Your task to perform on an android device: turn off translation in the chrome app Image 0: 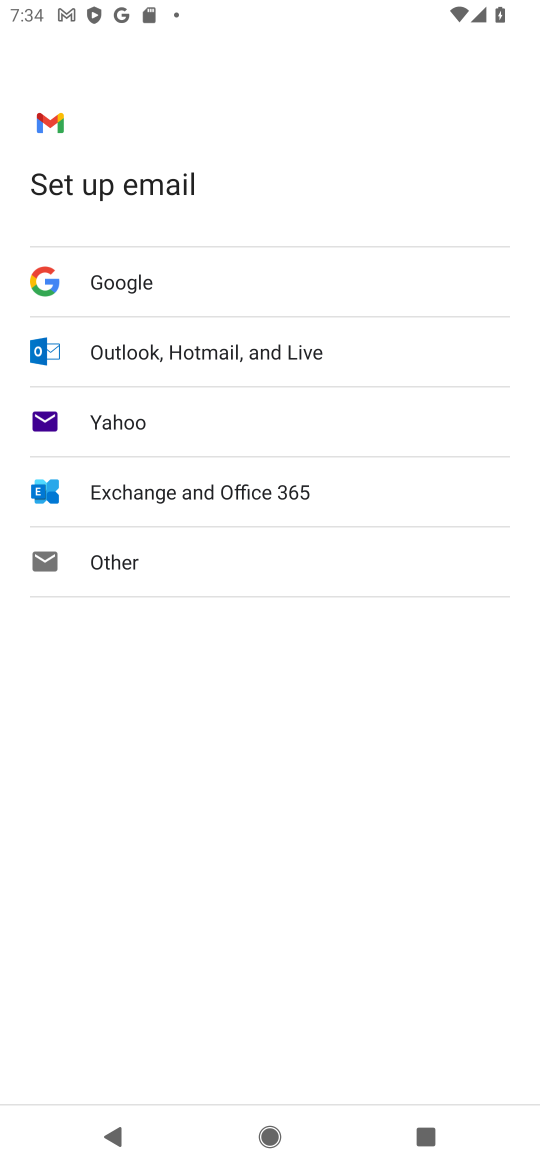
Step 0: press home button
Your task to perform on an android device: turn off translation in the chrome app Image 1: 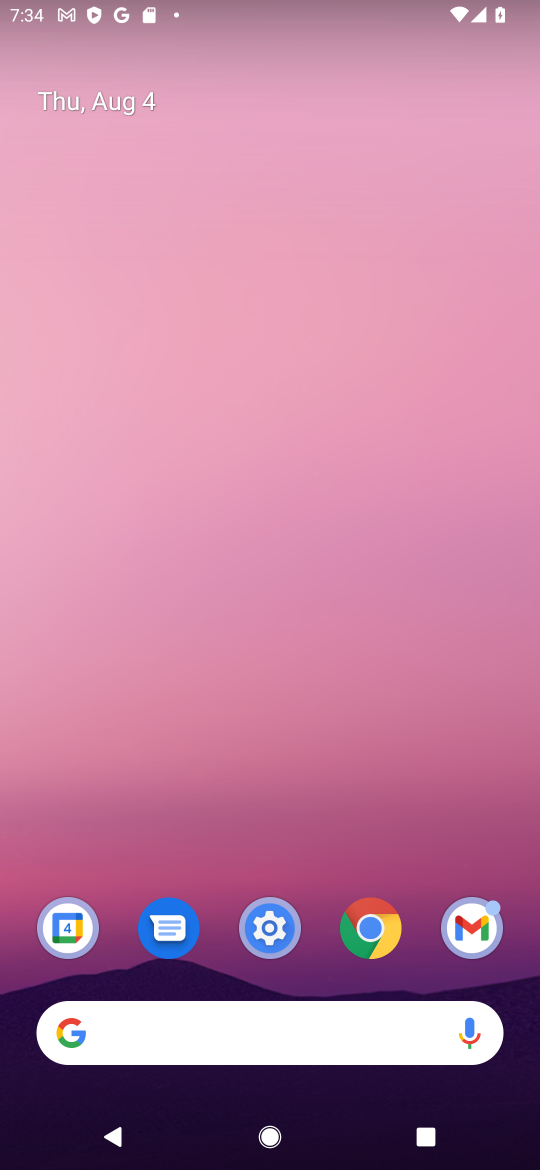
Step 1: click (381, 924)
Your task to perform on an android device: turn off translation in the chrome app Image 2: 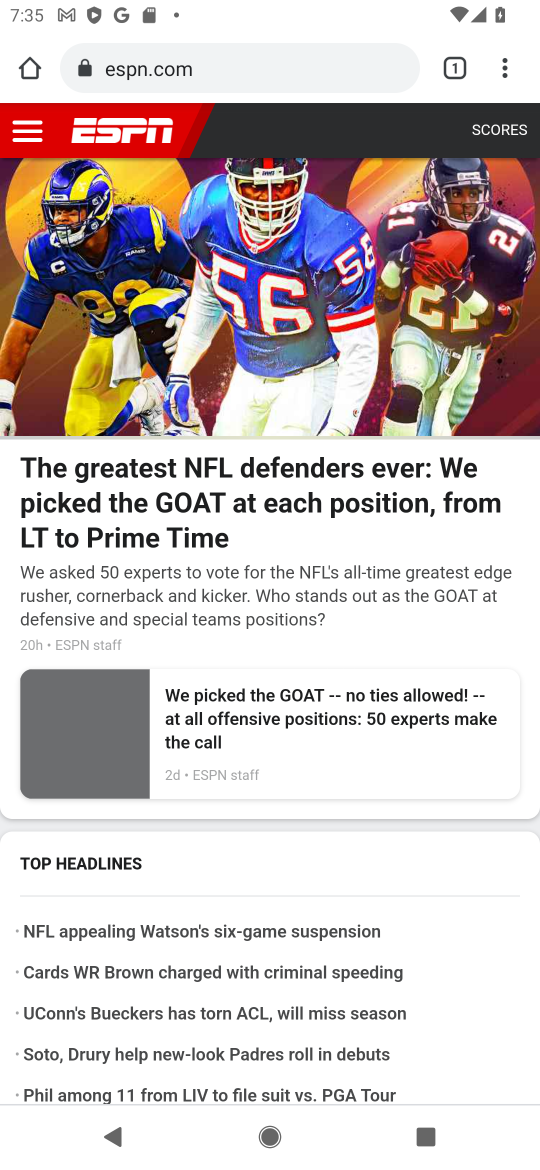
Step 2: click (503, 58)
Your task to perform on an android device: turn off translation in the chrome app Image 3: 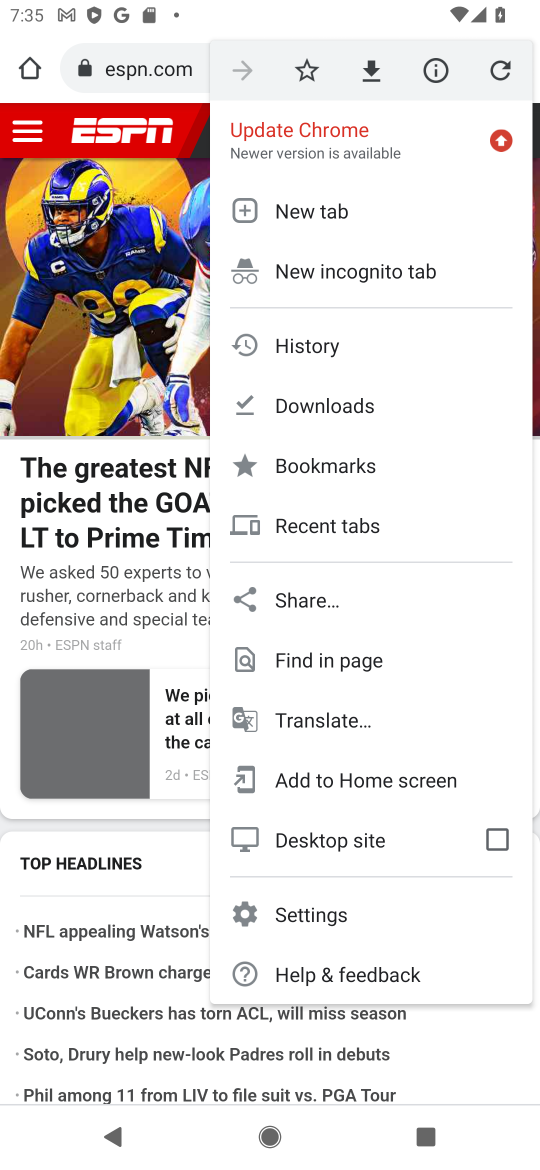
Step 3: click (308, 913)
Your task to perform on an android device: turn off translation in the chrome app Image 4: 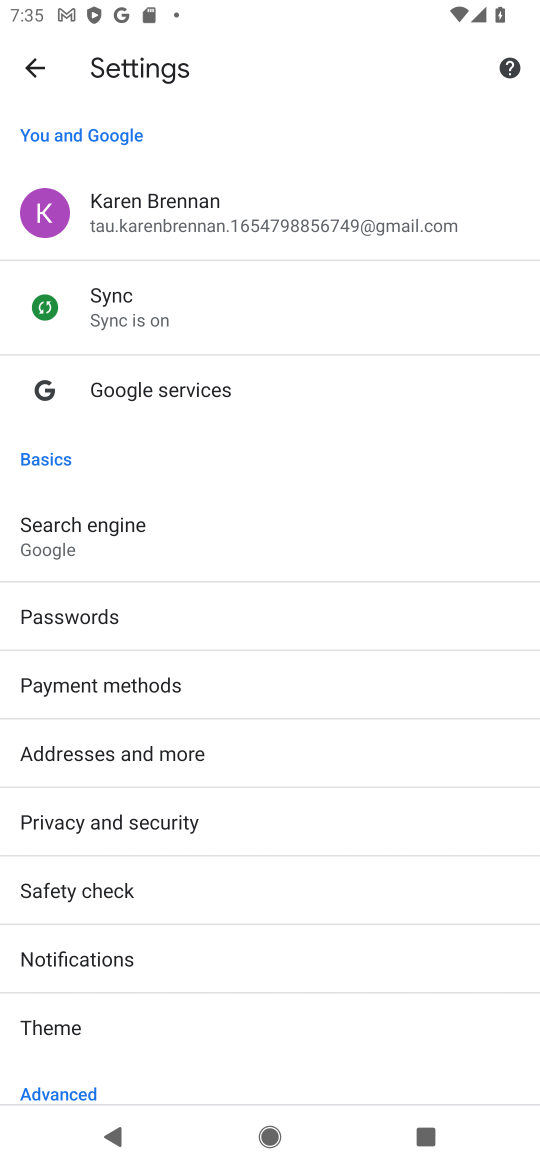
Step 4: drag from (125, 780) to (140, 591)
Your task to perform on an android device: turn off translation in the chrome app Image 5: 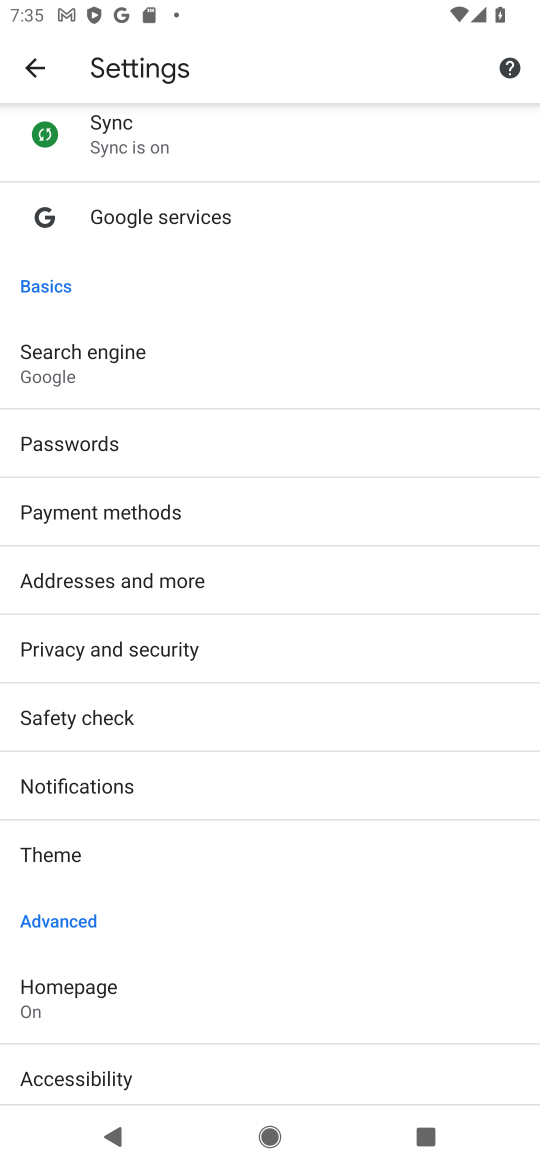
Step 5: drag from (95, 905) to (124, 569)
Your task to perform on an android device: turn off translation in the chrome app Image 6: 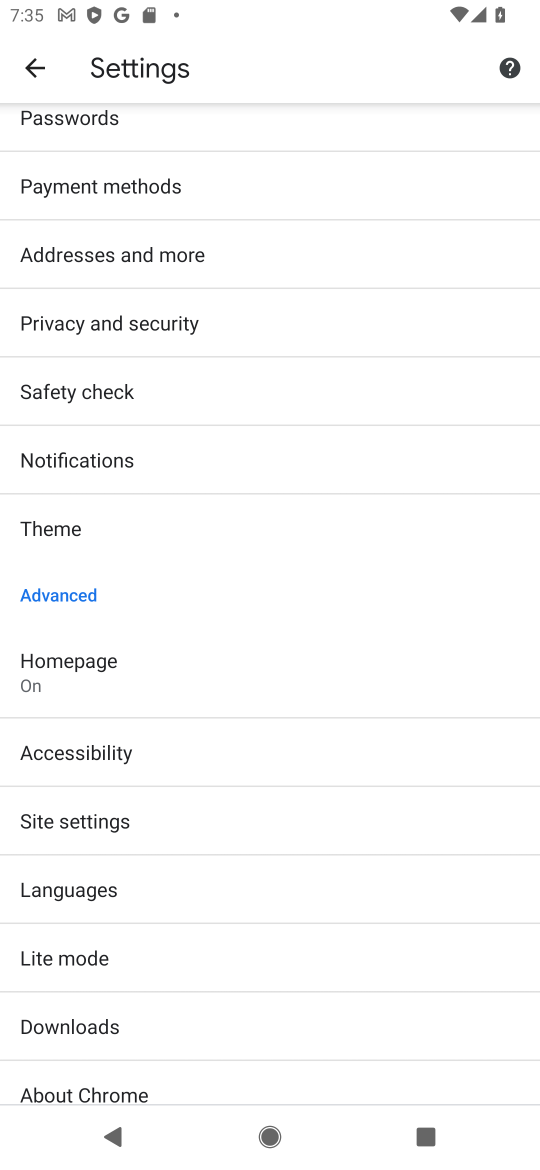
Step 6: click (75, 885)
Your task to perform on an android device: turn off translation in the chrome app Image 7: 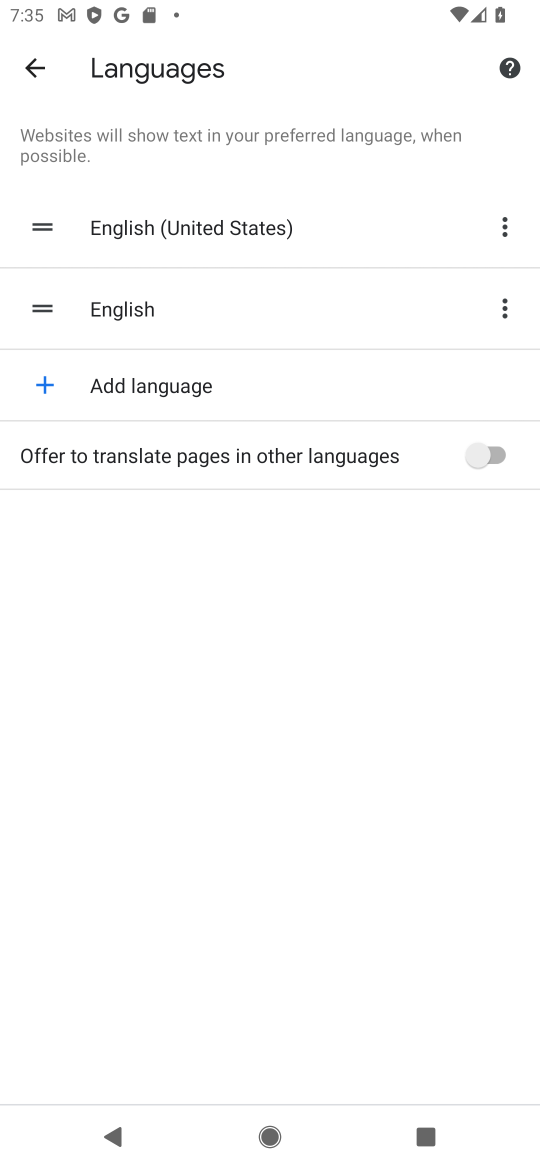
Step 7: task complete